Your task to perform on an android device: Open notification settings Image 0: 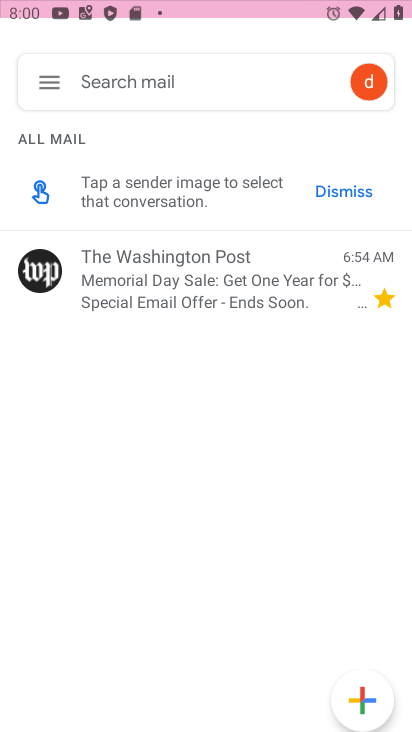
Step 0: press home button
Your task to perform on an android device: Open notification settings Image 1: 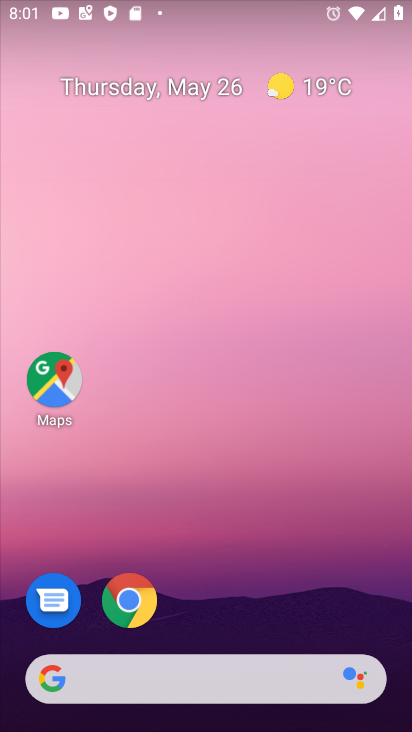
Step 1: drag from (265, 618) to (220, 156)
Your task to perform on an android device: Open notification settings Image 2: 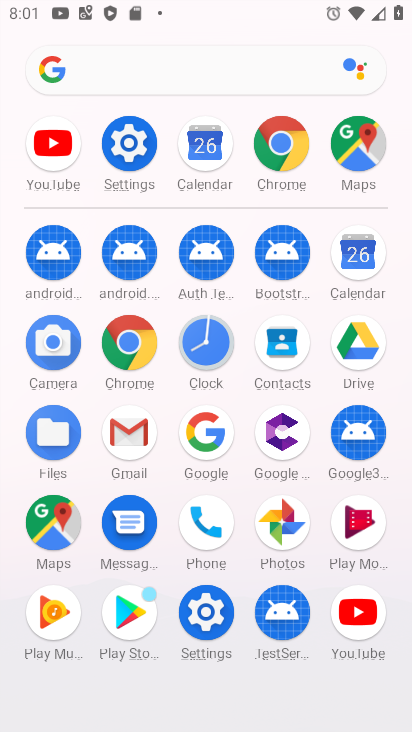
Step 2: click (125, 155)
Your task to perform on an android device: Open notification settings Image 3: 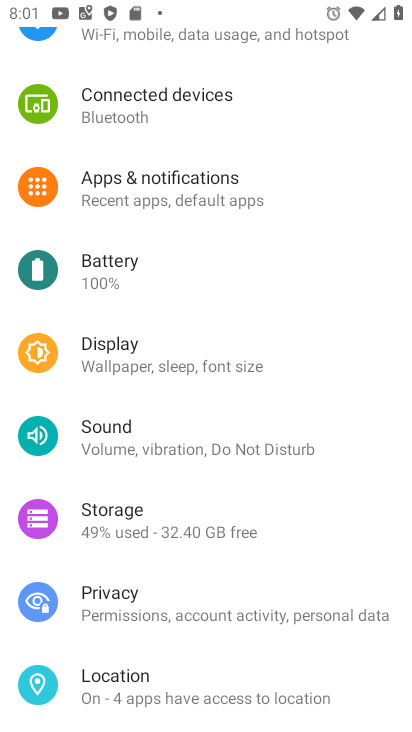
Step 3: click (153, 185)
Your task to perform on an android device: Open notification settings Image 4: 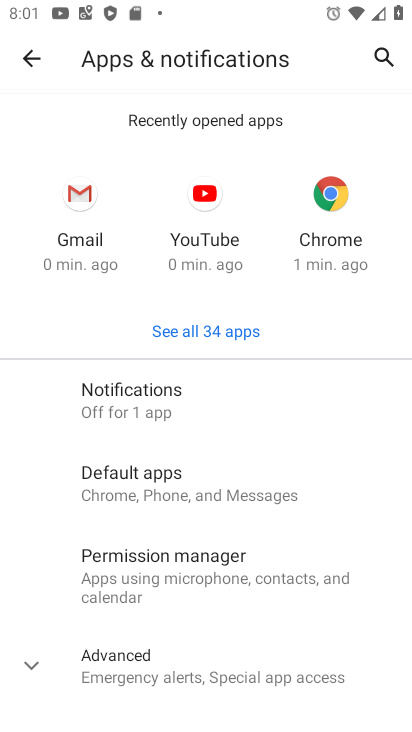
Step 4: click (122, 397)
Your task to perform on an android device: Open notification settings Image 5: 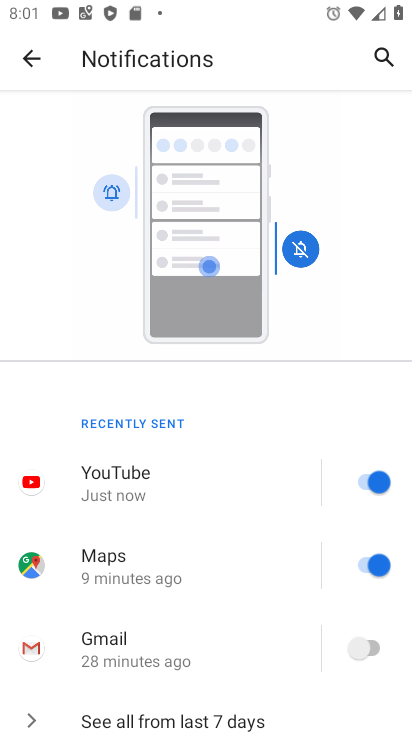
Step 5: task complete